Your task to perform on an android device: set the timer Image 0: 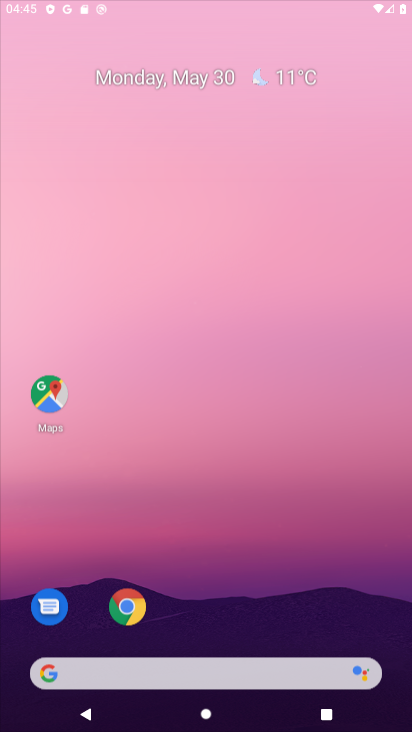
Step 0: click (122, 610)
Your task to perform on an android device: set the timer Image 1: 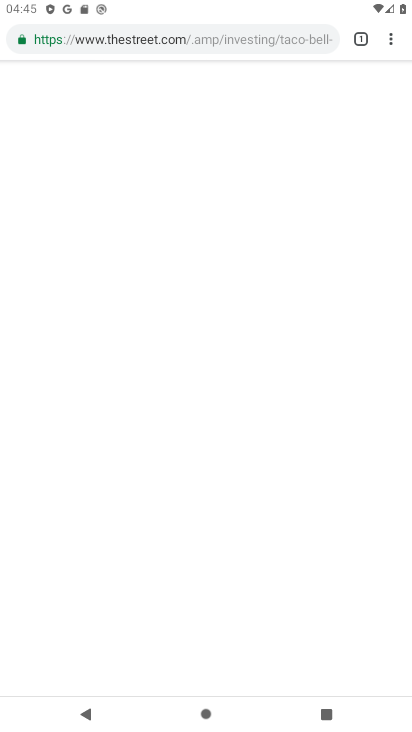
Step 1: press home button
Your task to perform on an android device: set the timer Image 2: 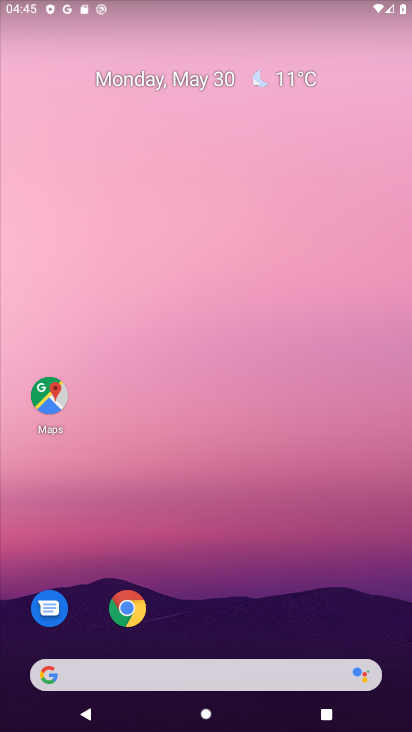
Step 2: drag from (227, 650) to (196, 234)
Your task to perform on an android device: set the timer Image 3: 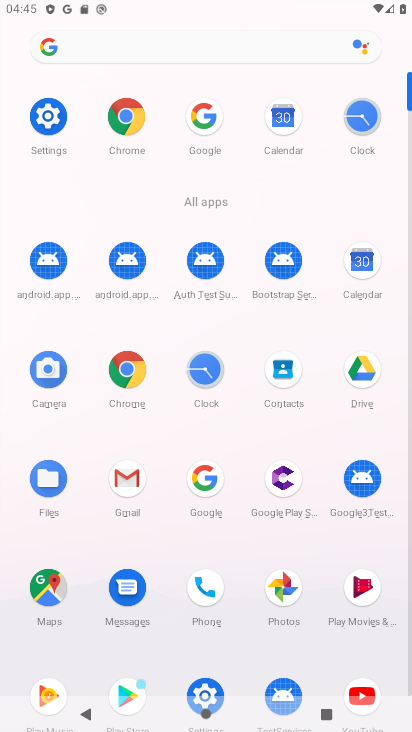
Step 3: click (205, 361)
Your task to perform on an android device: set the timer Image 4: 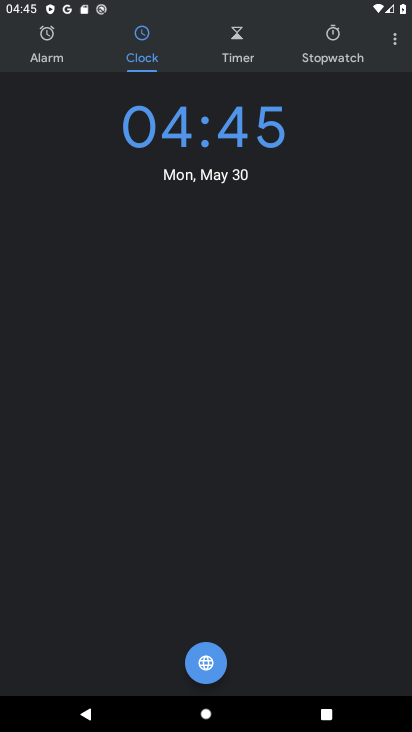
Step 4: click (235, 47)
Your task to perform on an android device: set the timer Image 5: 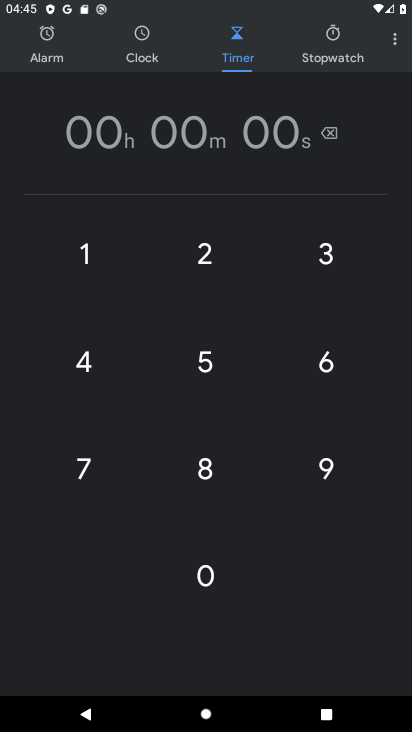
Step 5: click (206, 577)
Your task to perform on an android device: set the timer Image 6: 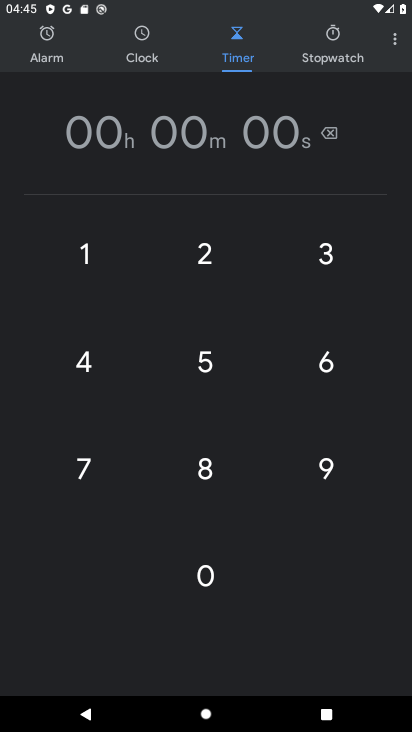
Step 6: click (214, 460)
Your task to perform on an android device: set the timer Image 7: 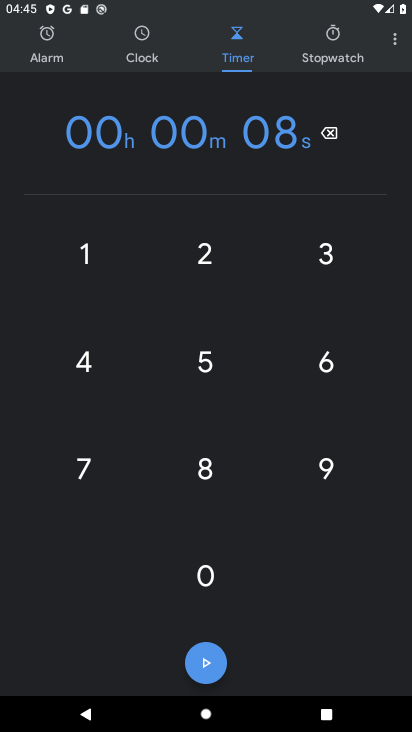
Step 7: click (211, 579)
Your task to perform on an android device: set the timer Image 8: 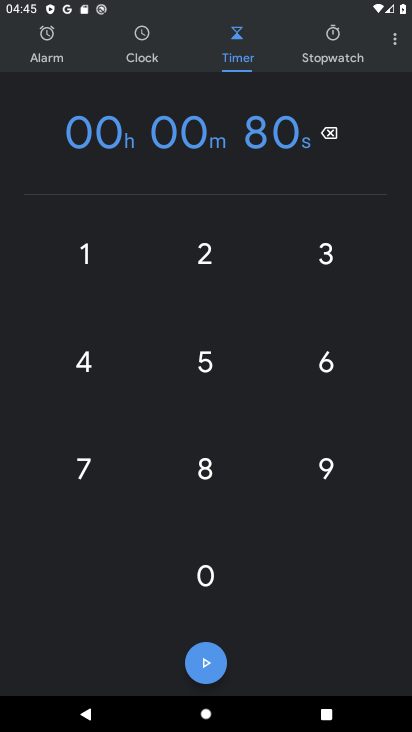
Step 8: click (211, 579)
Your task to perform on an android device: set the timer Image 9: 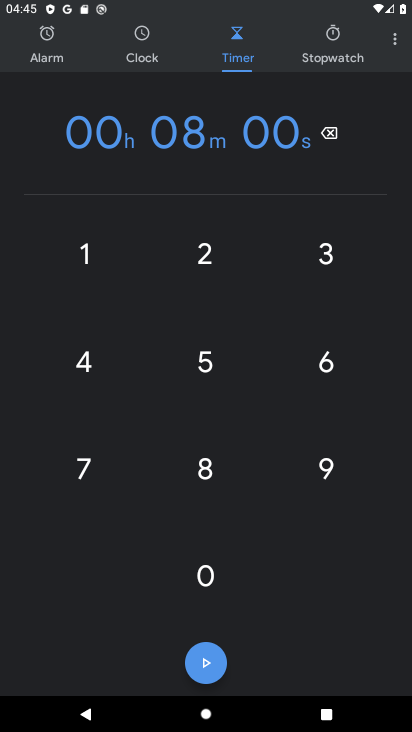
Step 9: click (197, 666)
Your task to perform on an android device: set the timer Image 10: 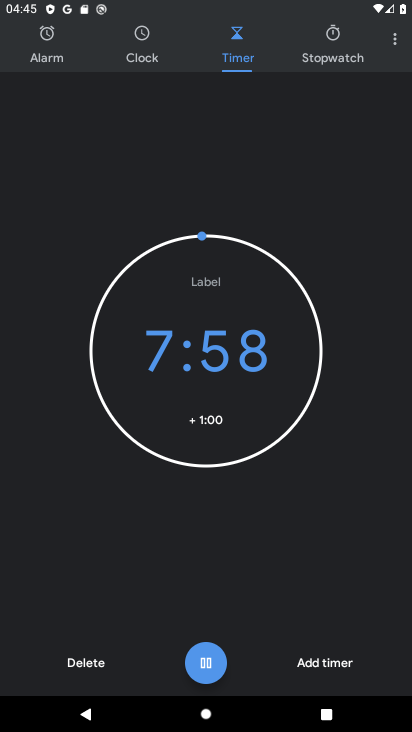
Step 10: task complete